Your task to perform on an android device: Go to Maps Image 0: 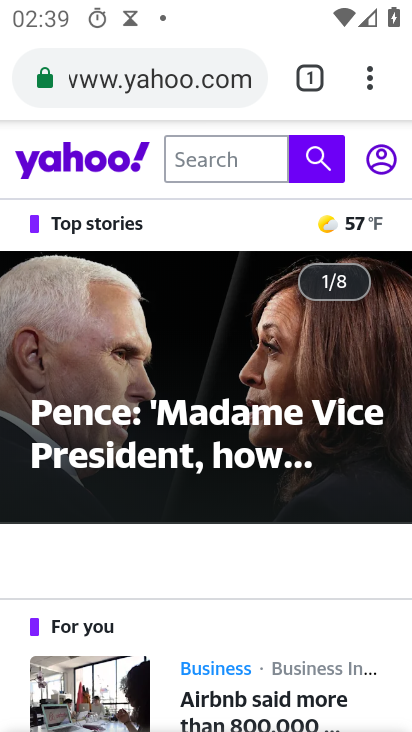
Step 0: press home button
Your task to perform on an android device: Go to Maps Image 1: 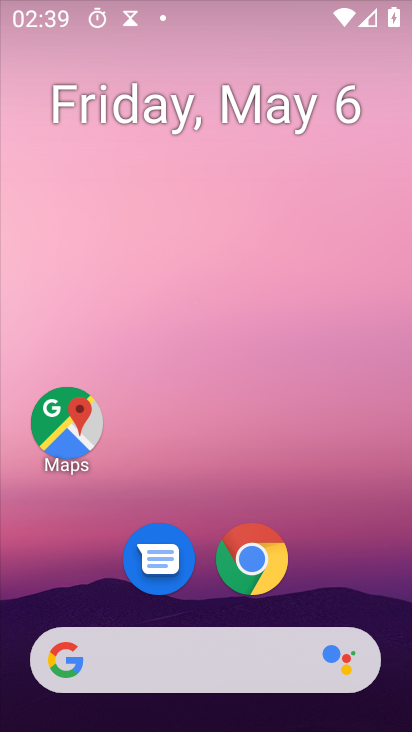
Step 1: drag from (249, 663) to (255, 99)
Your task to perform on an android device: Go to Maps Image 2: 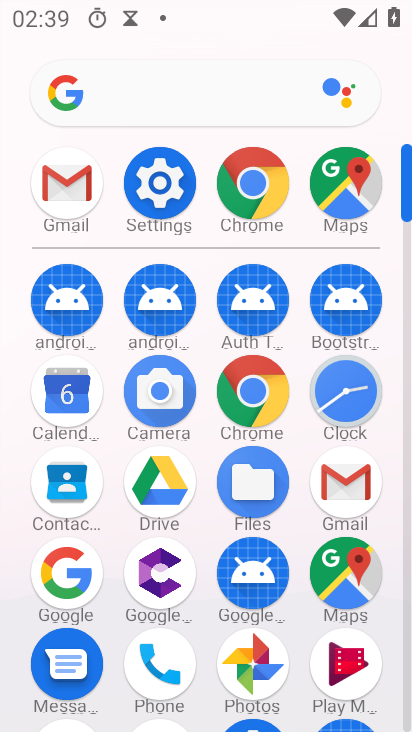
Step 2: click (349, 555)
Your task to perform on an android device: Go to Maps Image 3: 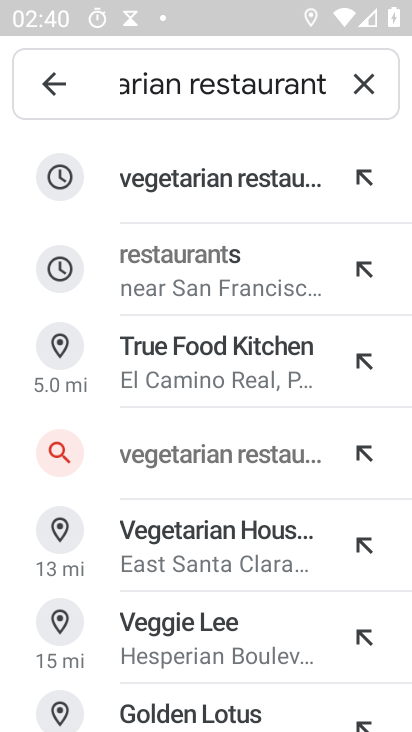
Step 3: task complete